Your task to perform on an android device: Open CNN.com Image 0: 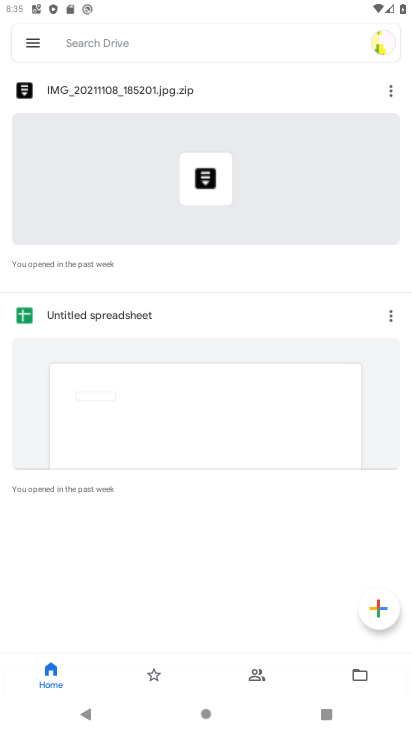
Step 0: press home button
Your task to perform on an android device: Open CNN.com Image 1: 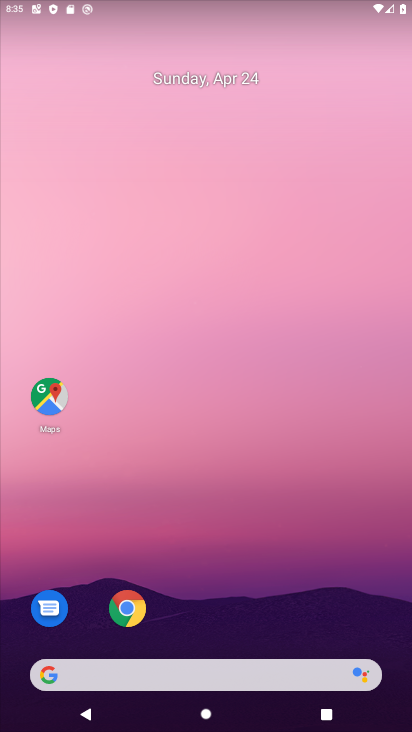
Step 1: drag from (254, 687) to (356, 166)
Your task to perform on an android device: Open CNN.com Image 2: 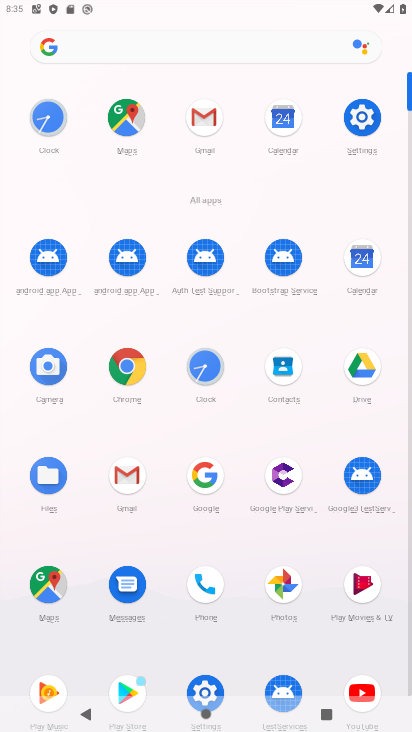
Step 2: click (123, 367)
Your task to perform on an android device: Open CNN.com Image 3: 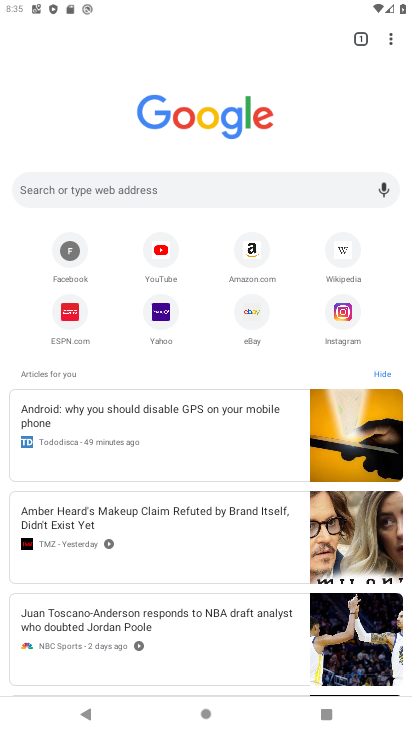
Step 3: click (164, 198)
Your task to perform on an android device: Open CNN.com Image 4: 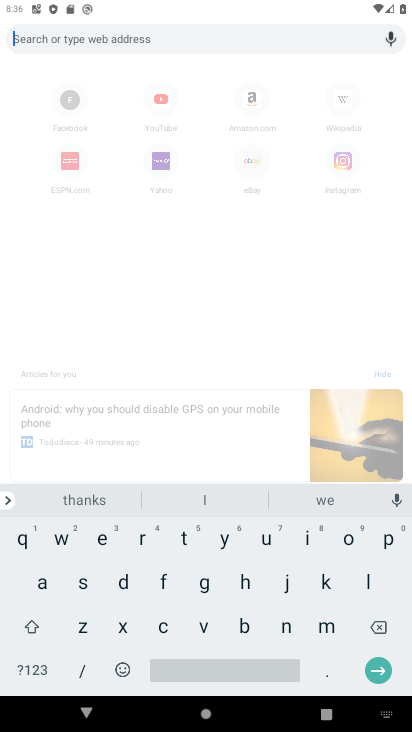
Step 4: click (163, 624)
Your task to perform on an android device: Open CNN.com Image 5: 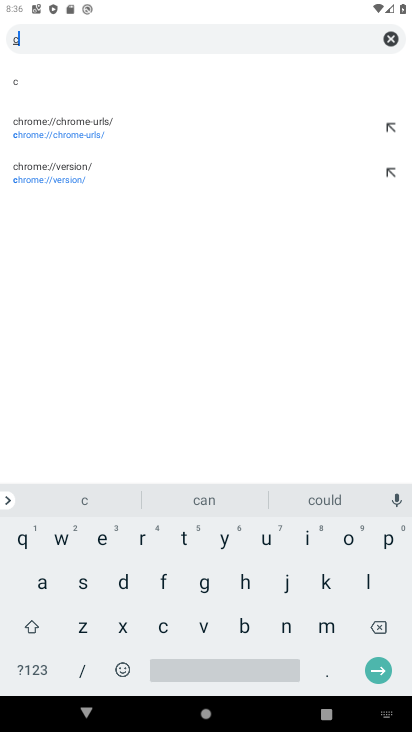
Step 5: click (284, 631)
Your task to perform on an android device: Open CNN.com Image 6: 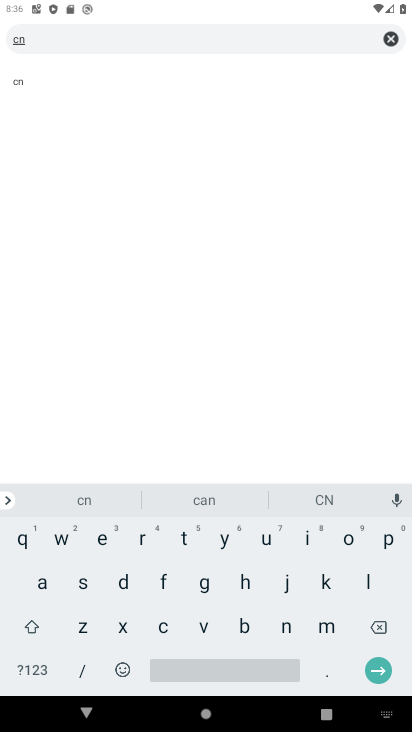
Step 6: click (284, 631)
Your task to perform on an android device: Open CNN.com Image 7: 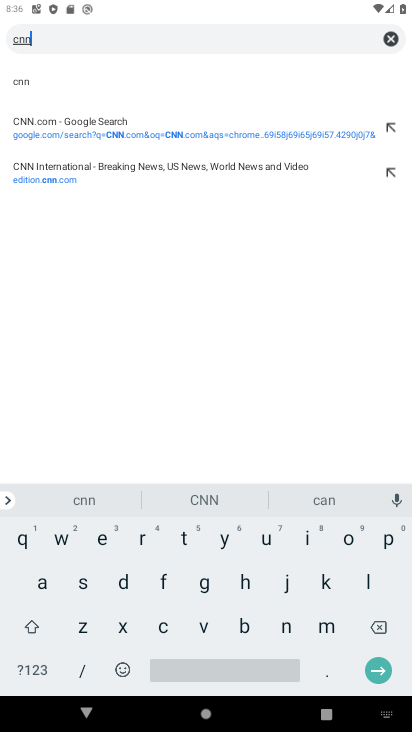
Step 7: drag from (320, 651) to (377, 672)
Your task to perform on an android device: Open CNN.com Image 8: 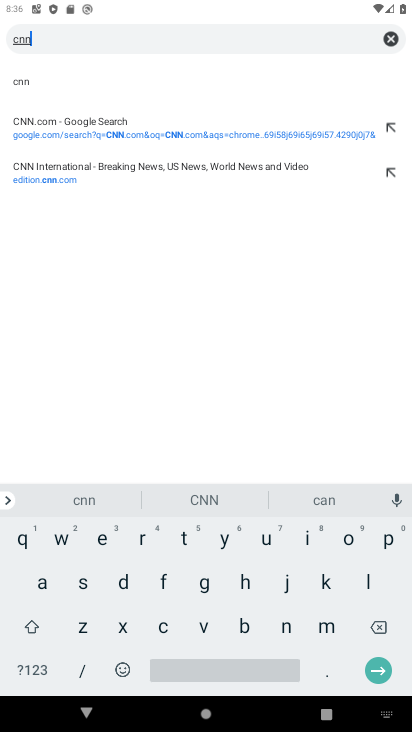
Step 8: click (377, 672)
Your task to perform on an android device: Open CNN.com Image 9: 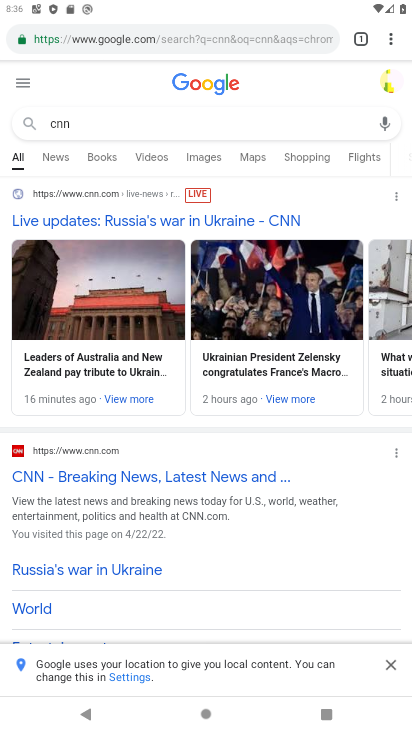
Step 9: click (88, 471)
Your task to perform on an android device: Open CNN.com Image 10: 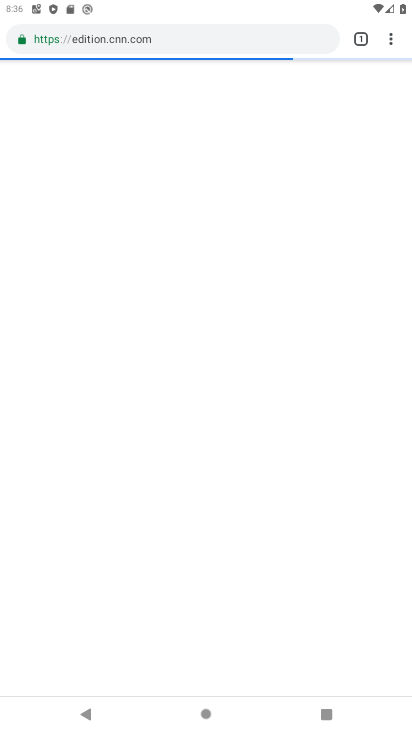
Step 10: task complete